Your task to perform on an android device: Open settings on Google Maps Image 0: 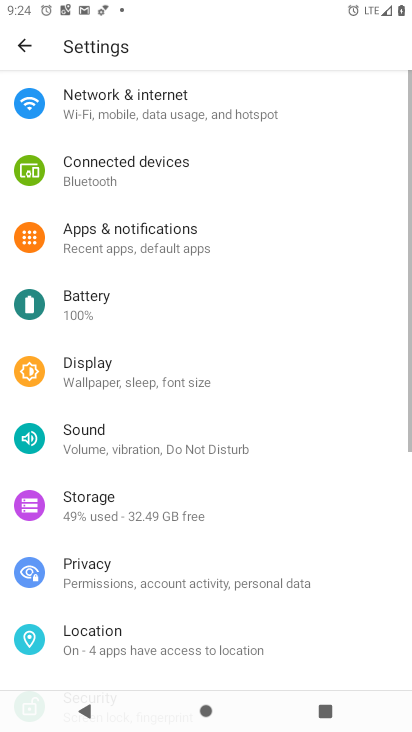
Step 0: press home button
Your task to perform on an android device: Open settings on Google Maps Image 1: 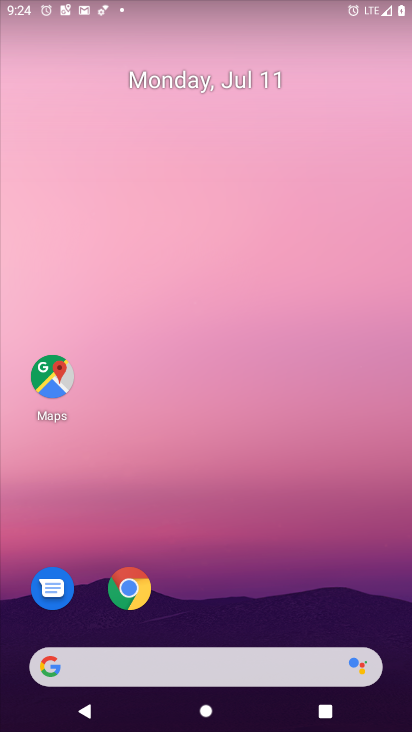
Step 1: click (54, 384)
Your task to perform on an android device: Open settings on Google Maps Image 2: 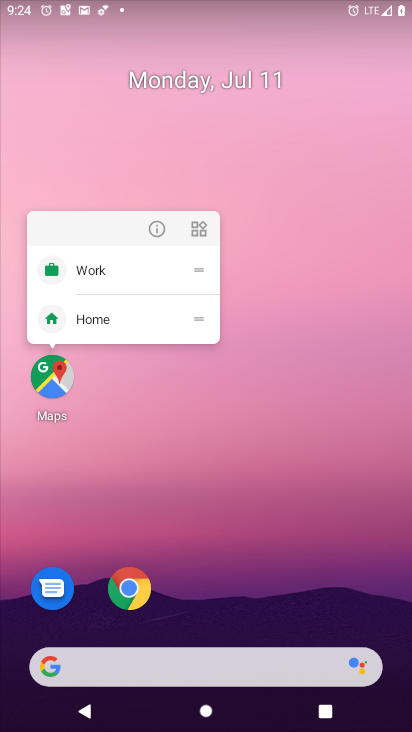
Step 2: click (53, 382)
Your task to perform on an android device: Open settings on Google Maps Image 3: 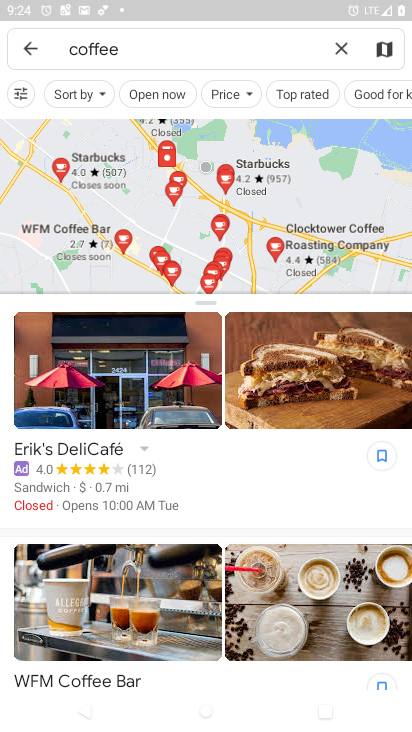
Step 3: click (30, 45)
Your task to perform on an android device: Open settings on Google Maps Image 4: 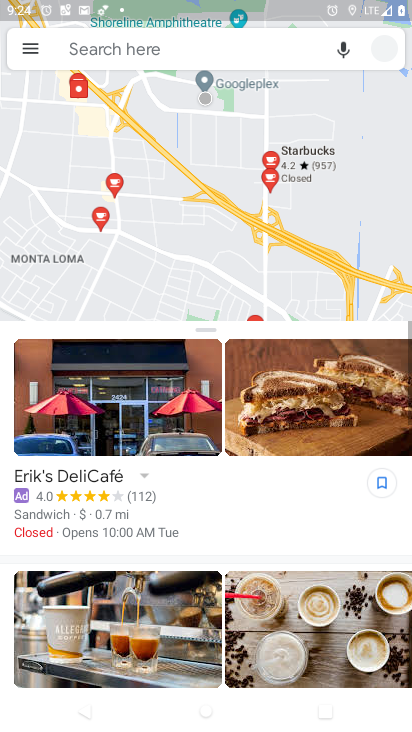
Step 4: click (29, 45)
Your task to perform on an android device: Open settings on Google Maps Image 5: 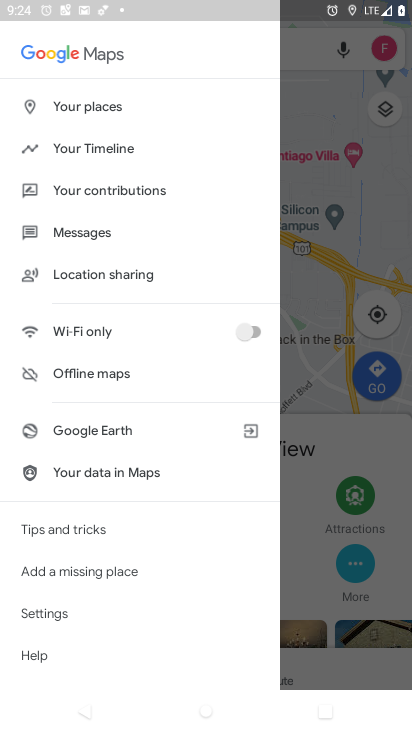
Step 5: click (63, 609)
Your task to perform on an android device: Open settings on Google Maps Image 6: 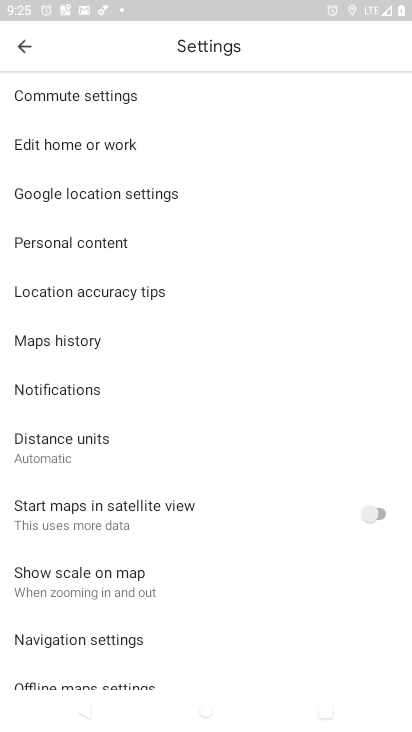
Step 6: task complete